Your task to perform on an android device: uninstall "Instagram" Image 0: 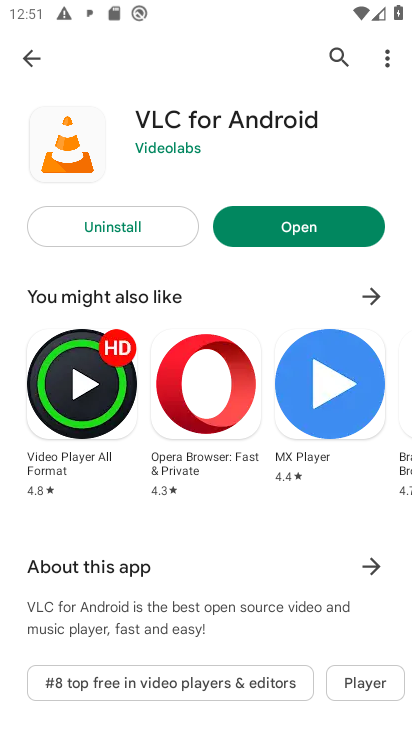
Step 0: click (34, 56)
Your task to perform on an android device: uninstall "Instagram" Image 1: 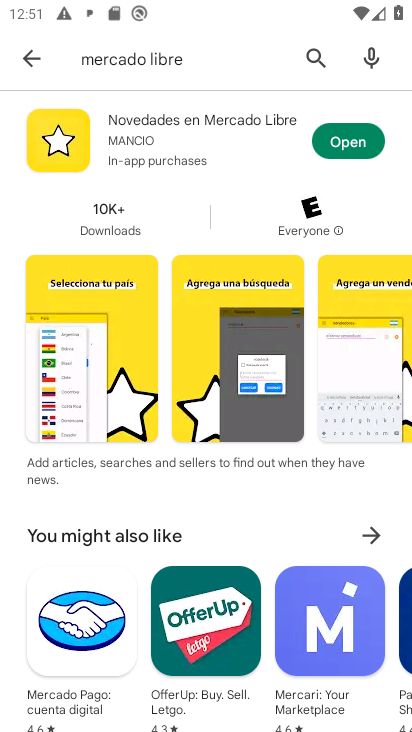
Step 1: click (309, 61)
Your task to perform on an android device: uninstall "Instagram" Image 2: 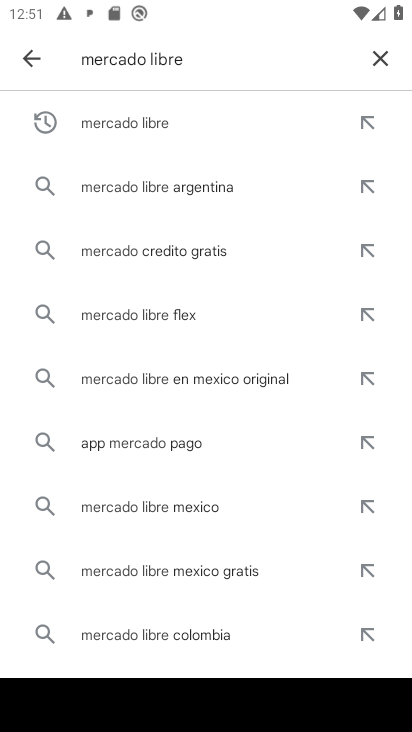
Step 2: click (378, 59)
Your task to perform on an android device: uninstall "Instagram" Image 3: 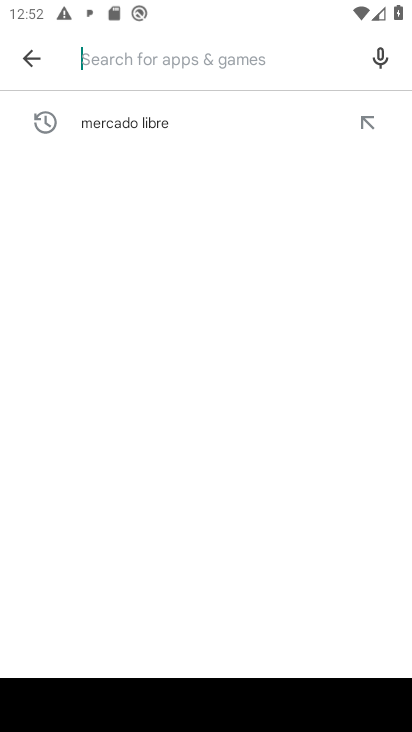
Step 3: type "Instagram"
Your task to perform on an android device: uninstall "Instagram" Image 4: 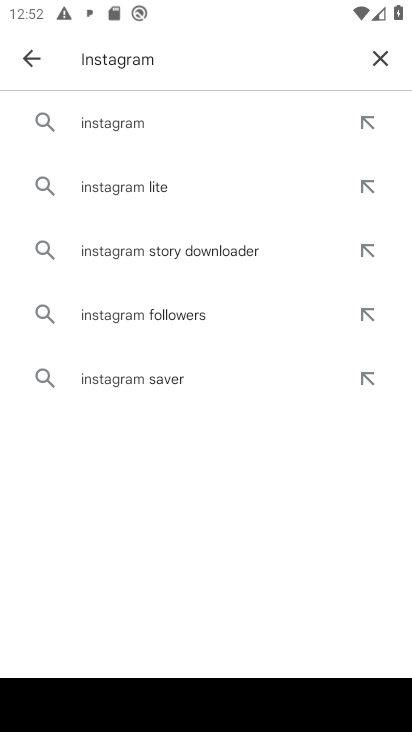
Step 4: click (113, 127)
Your task to perform on an android device: uninstall "Instagram" Image 5: 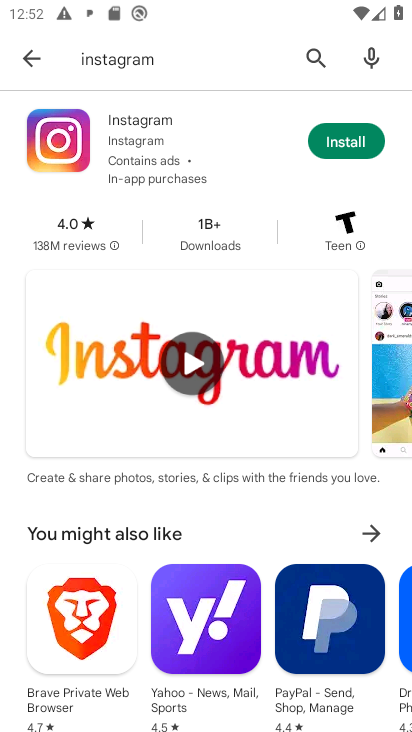
Step 5: task complete